Your task to perform on an android device: Open the stopwatch Image 0: 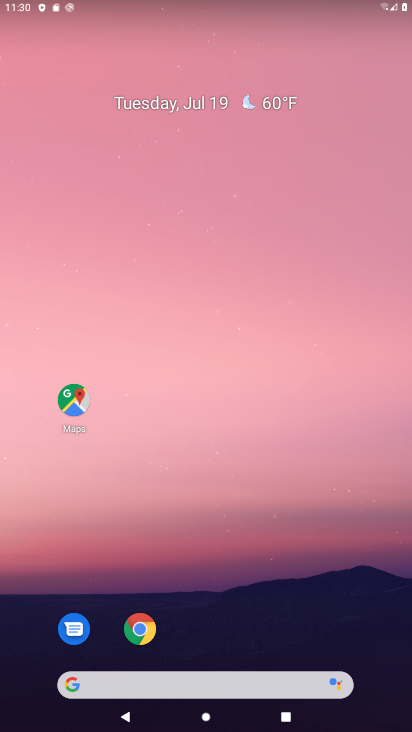
Step 0: drag from (259, 608) to (261, 37)
Your task to perform on an android device: Open the stopwatch Image 1: 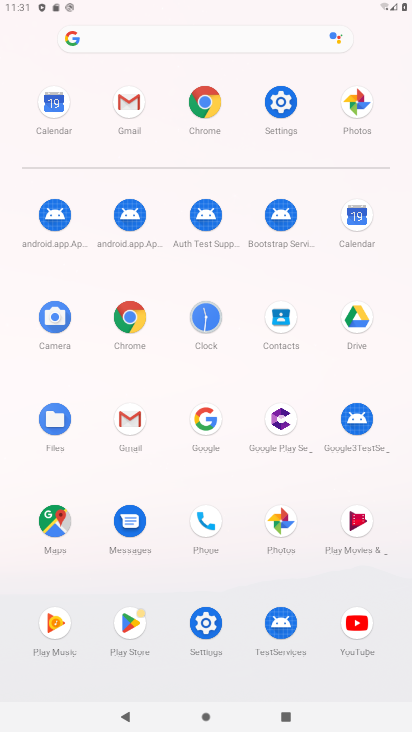
Step 1: click (200, 314)
Your task to perform on an android device: Open the stopwatch Image 2: 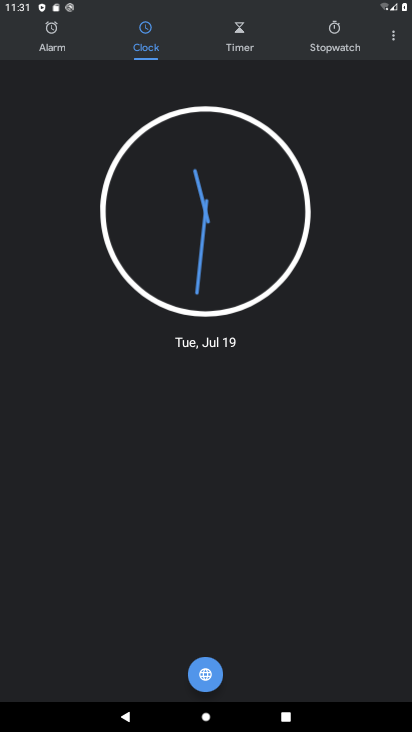
Step 2: click (325, 53)
Your task to perform on an android device: Open the stopwatch Image 3: 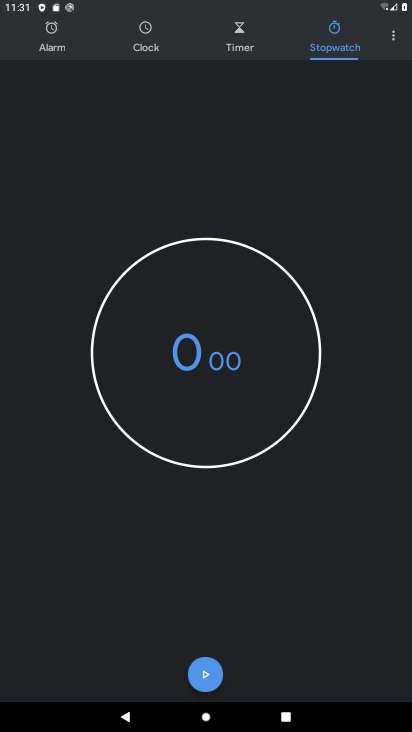
Step 3: click (200, 678)
Your task to perform on an android device: Open the stopwatch Image 4: 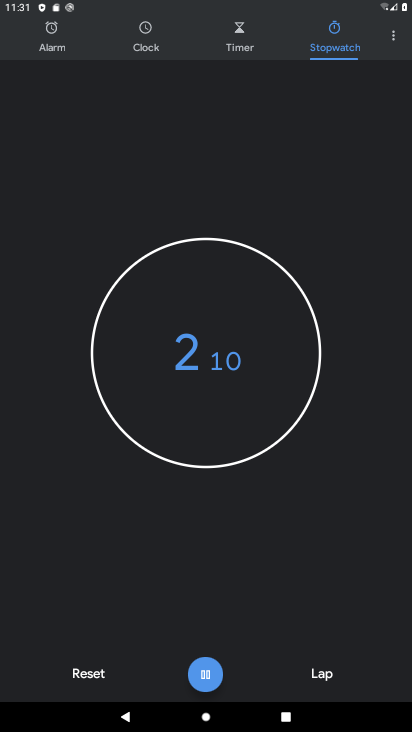
Step 4: task complete